Your task to perform on an android device: install app "Etsy: Buy & Sell Unique Items" Image 0: 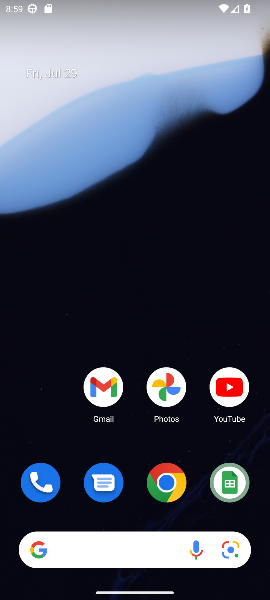
Step 0: drag from (143, 594) to (122, 74)
Your task to perform on an android device: install app "Etsy: Buy & Sell Unique Items" Image 1: 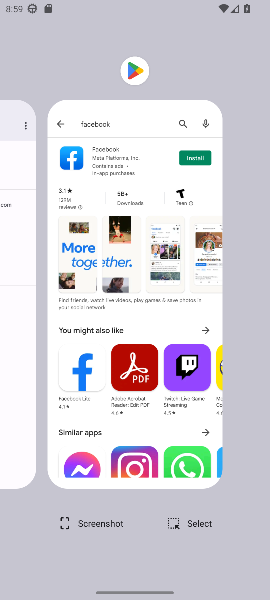
Step 1: click (157, 232)
Your task to perform on an android device: install app "Etsy: Buy & Sell Unique Items" Image 2: 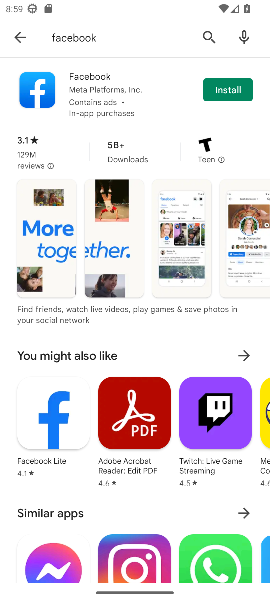
Step 2: click (207, 35)
Your task to perform on an android device: install app "Etsy: Buy & Sell Unique Items" Image 3: 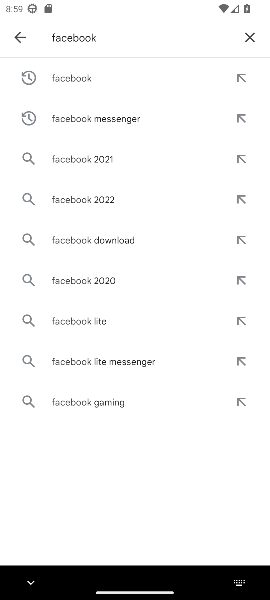
Step 3: click (251, 39)
Your task to perform on an android device: install app "Etsy: Buy & Sell Unique Items" Image 4: 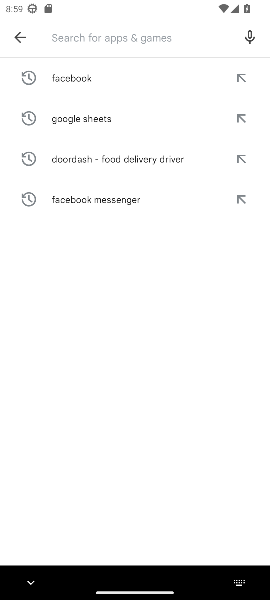
Step 4: type "Etsy: Buy & Sell Unique Items"
Your task to perform on an android device: install app "Etsy: Buy & Sell Unique Items" Image 5: 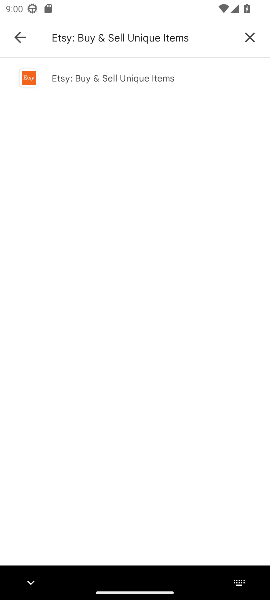
Step 5: click (129, 77)
Your task to perform on an android device: install app "Etsy: Buy & Sell Unique Items" Image 6: 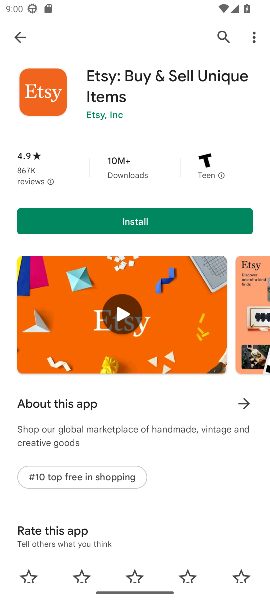
Step 6: click (132, 221)
Your task to perform on an android device: install app "Etsy: Buy & Sell Unique Items" Image 7: 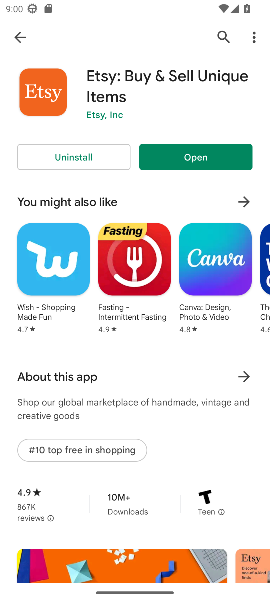
Step 7: task complete